Your task to perform on an android device: Check the weather Image 0: 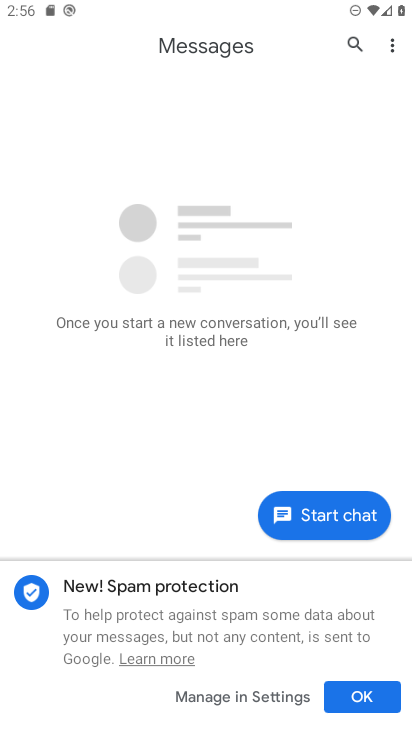
Step 0: press home button
Your task to perform on an android device: Check the weather Image 1: 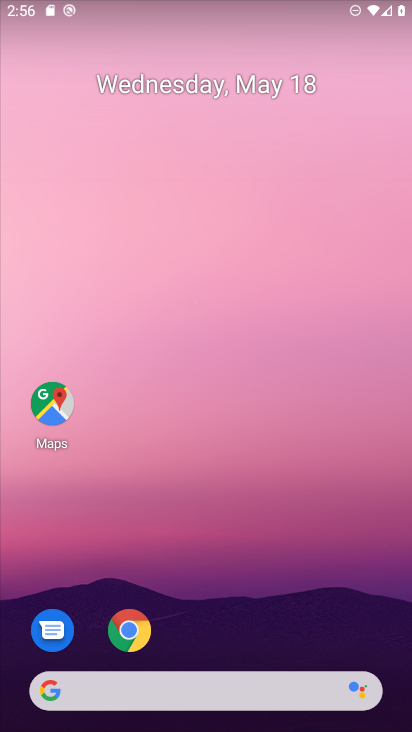
Step 1: drag from (40, 263) to (408, 295)
Your task to perform on an android device: Check the weather Image 2: 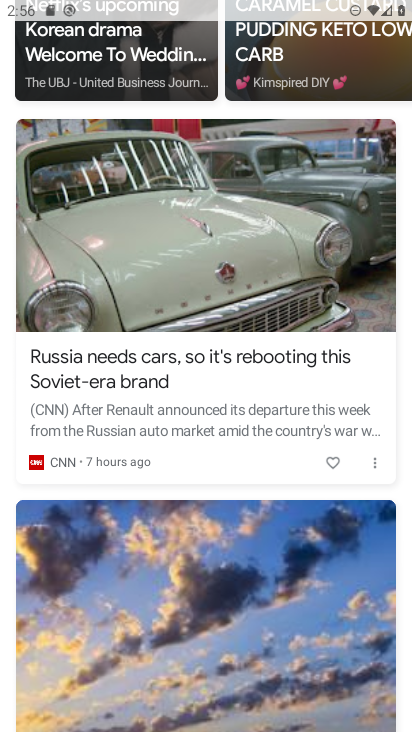
Step 2: drag from (209, 92) to (212, 702)
Your task to perform on an android device: Check the weather Image 3: 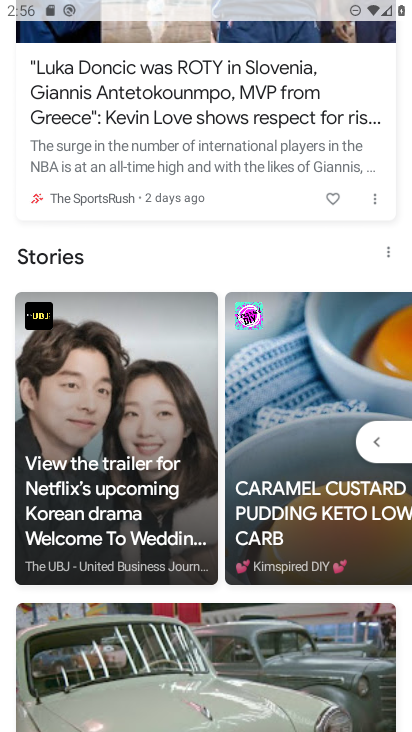
Step 3: drag from (233, 111) to (244, 691)
Your task to perform on an android device: Check the weather Image 4: 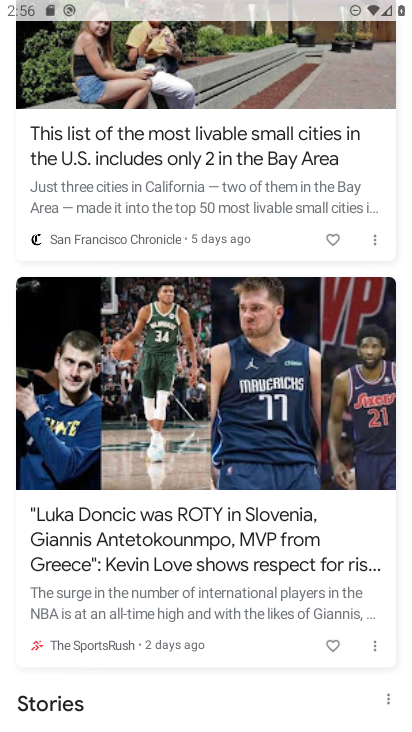
Step 4: drag from (233, 92) to (263, 594)
Your task to perform on an android device: Check the weather Image 5: 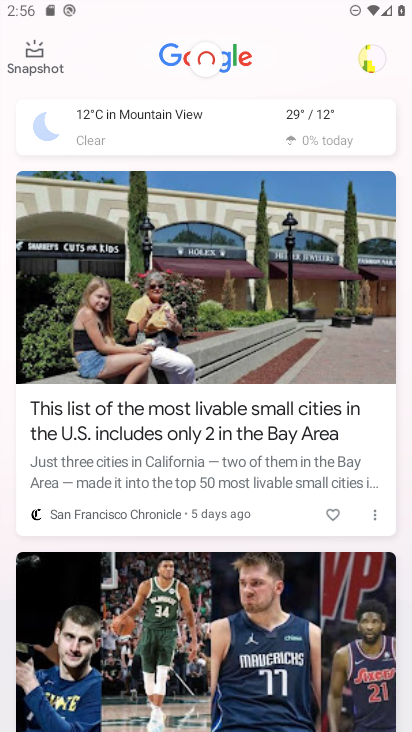
Step 5: click (301, 113)
Your task to perform on an android device: Check the weather Image 6: 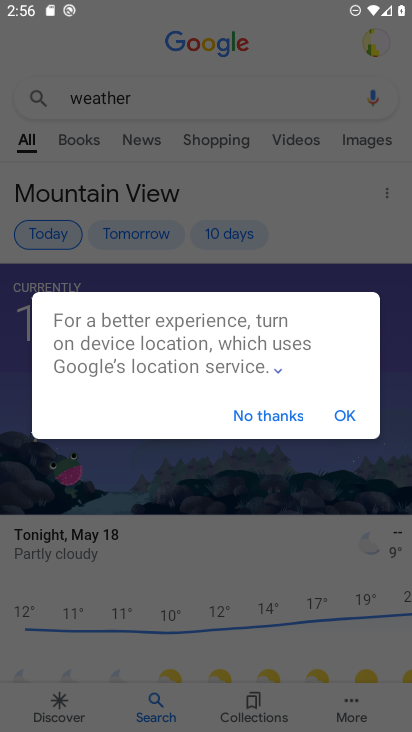
Step 6: click (338, 416)
Your task to perform on an android device: Check the weather Image 7: 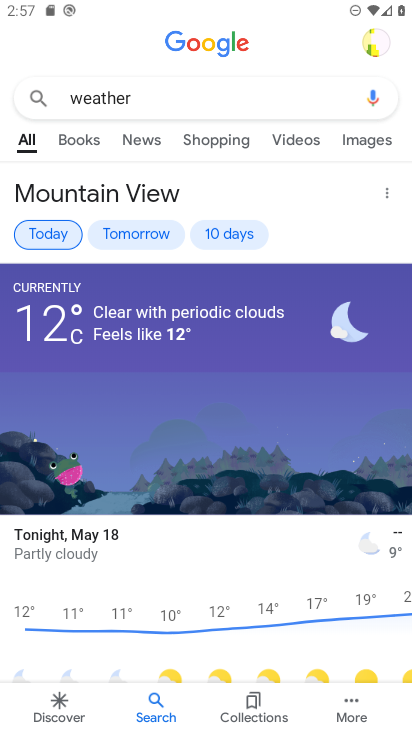
Step 7: task complete